Your task to perform on an android device: visit the assistant section in the google photos Image 0: 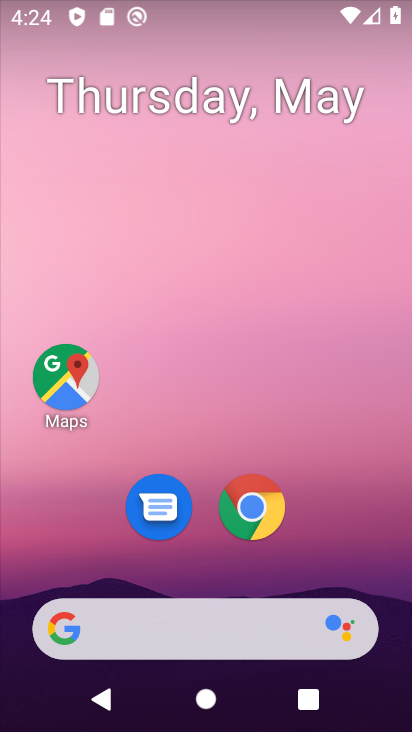
Step 0: drag from (355, 617) to (257, 203)
Your task to perform on an android device: visit the assistant section in the google photos Image 1: 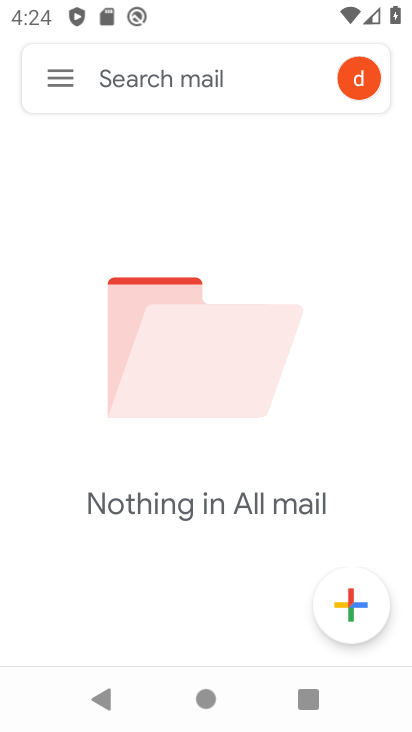
Step 1: press back button
Your task to perform on an android device: visit the assistant section in the google photos Image 2: 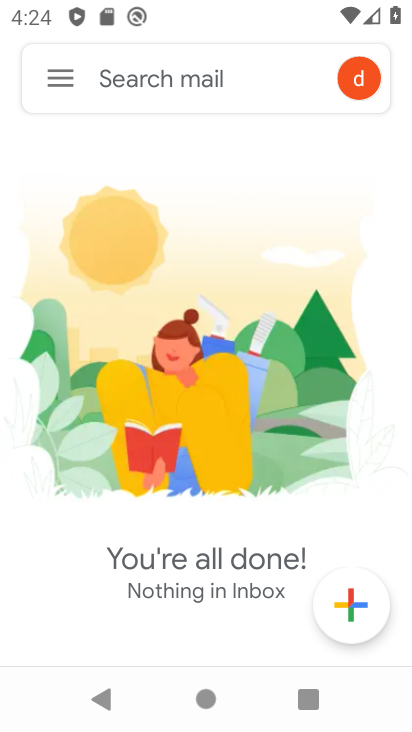
Step 2: drag from (232, 536) to (241, 403)
Your task to perform on an android device: visit the assistant section in the google photos Image 3: 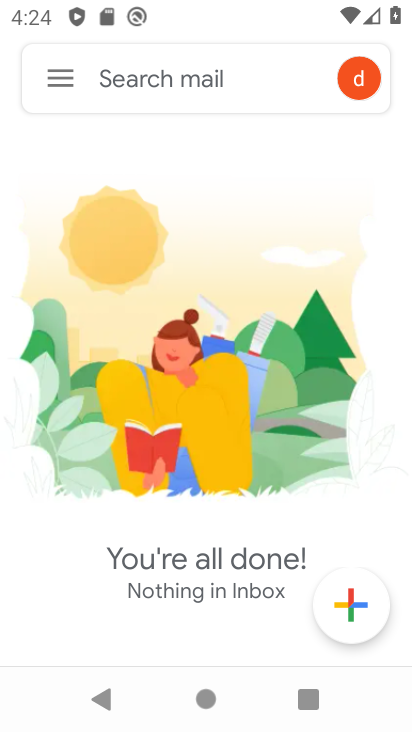
Step 3: press home button
Your task to perform on an android device: visit the assistant section in the google photos Image 4: 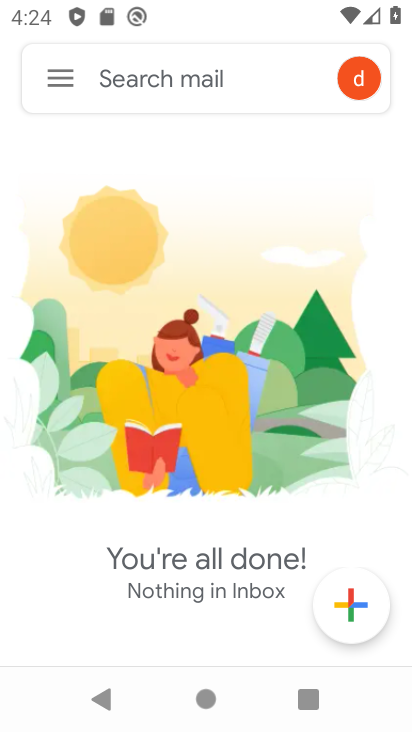
Step 4: press home button
Your task to perform on an android device: visit the assistant section in the google photos Image 5: 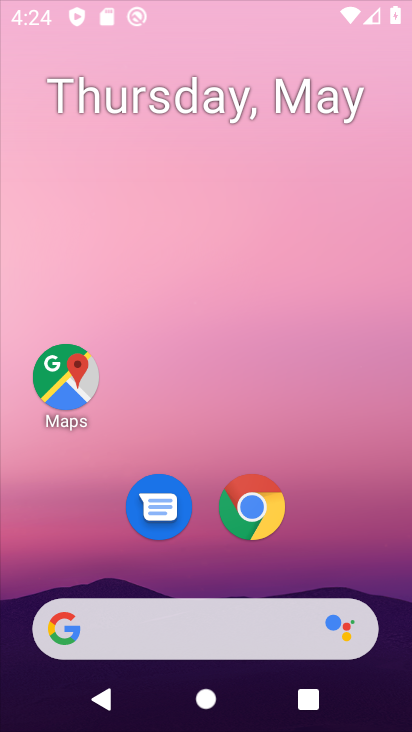
Step 5: press home button
Your task to perform on an android device: visit the assistant section in the google photos Image 6: 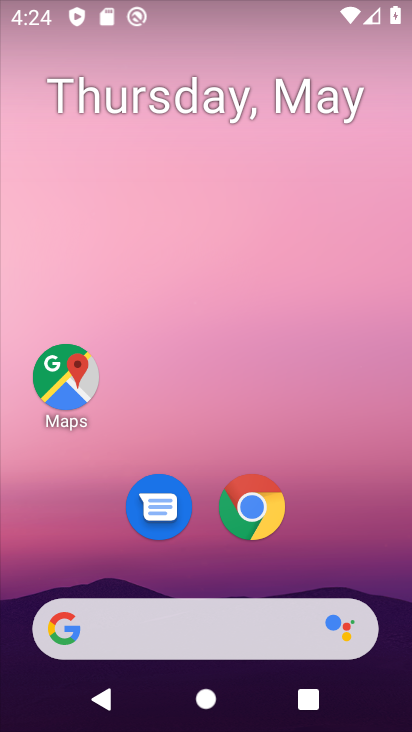
Step 6: drag from (282, 460) to (143, 170)
Your task to perform on an android device: visit the assistant section in the google photos Image 7: 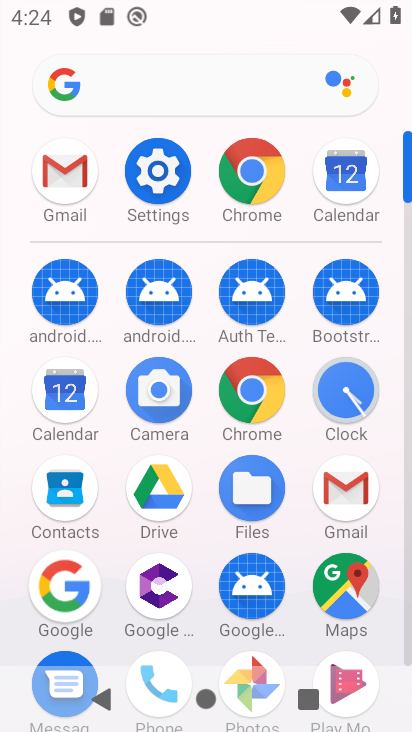
Step 7: drag from (289, 602) to (246, 161)
Your task to perform on an android device: visit the assistant section in the google photos Image 8: 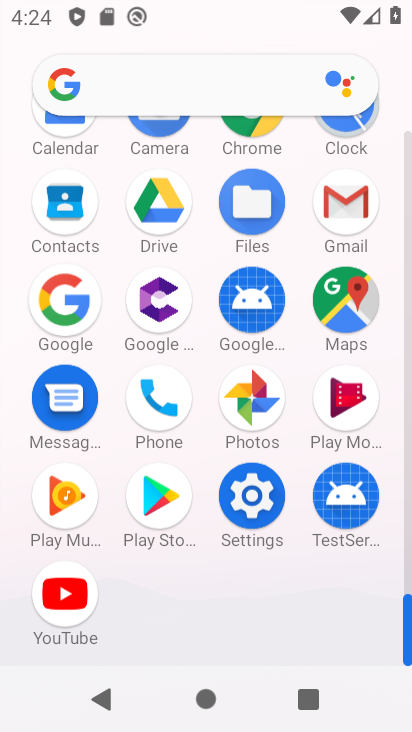
Step 8: drag from (305, 491) to (269, 186)
Your task to perform on an android device: visit the assistant section in the google photos Image 9: 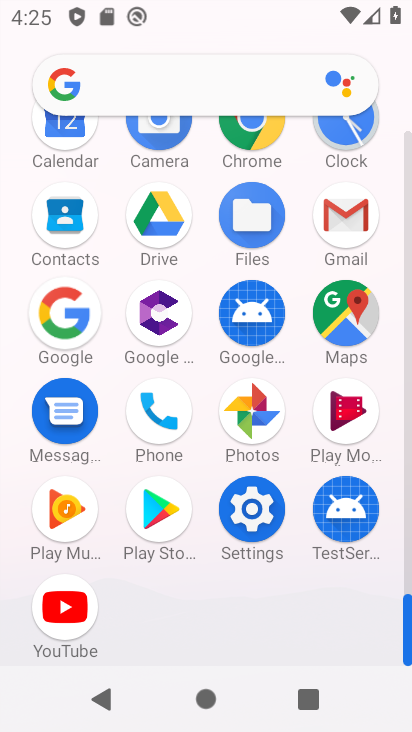
Step 9: click (253, 414)
Your task to perform on an android device: visit the assistant section in the google photos Image 10: 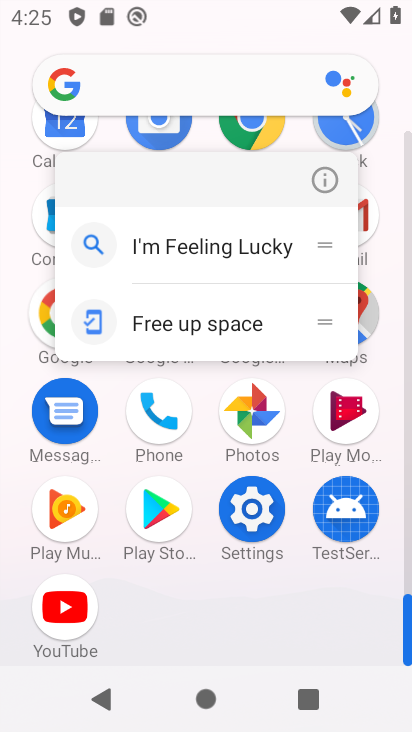
Step 10: click (250, 402)
Your task to perform on an android device: visit the assistant section in the google photos Image 11: 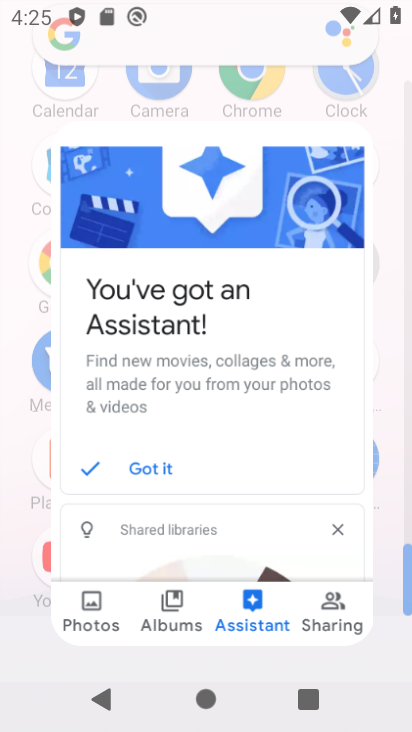
Step 11: click (250, 402)
Your task to perform on an android device: visit the assistant section in the google photos Image 12: 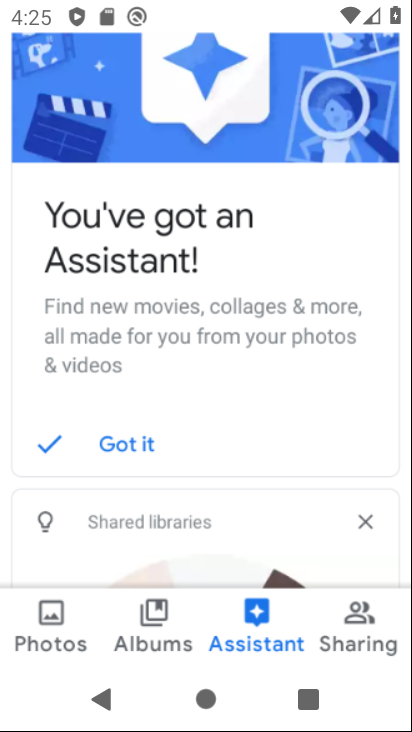
Step 12: click (250, 402)
Your task to perform on an android device: visit the assistant section in the google photos Image 13: 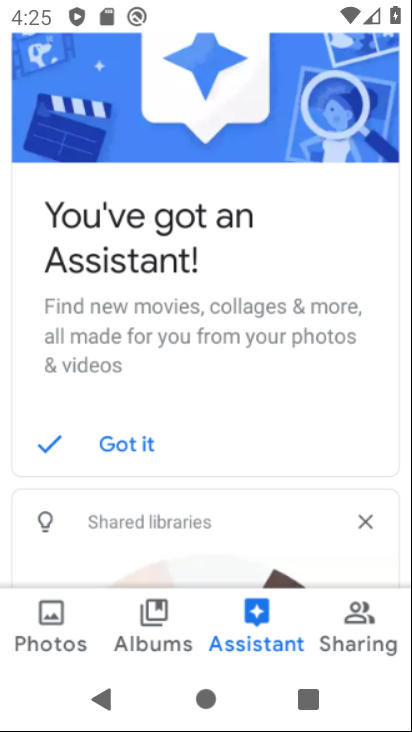
Step 13: click (250, 402)
Your task to perform on an android device: visit the assistant section in the google photos Image 14: 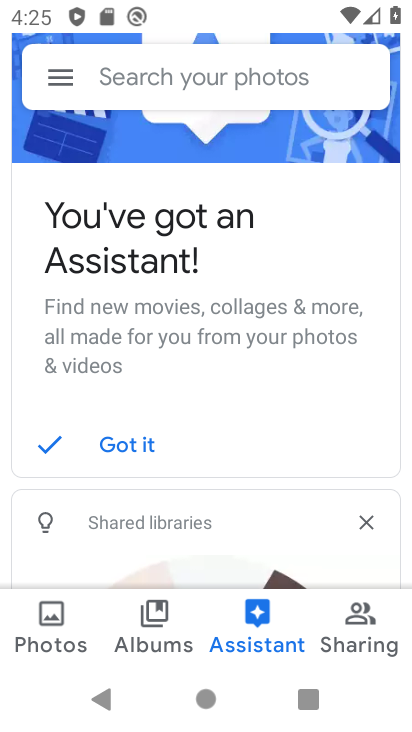
Step 14: task complete